Your task to perform on an android device: turn off javascript in the chrome app Image 0: 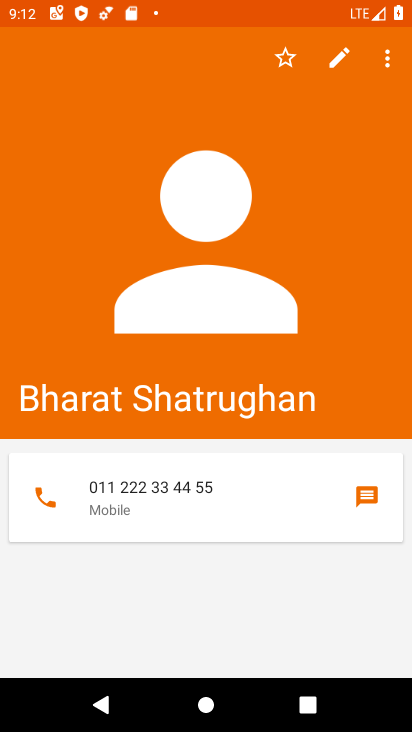
Step 0: press home button
Your task to perform on an android device: turn off javascript in the chrome app Image 1: 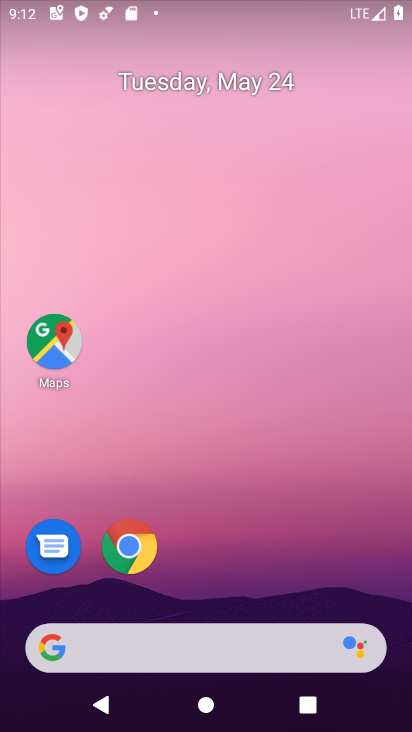
Step 1: click (122, 541)
Your task to perform on an android device: turn off javascript in the chrome app Image 2: 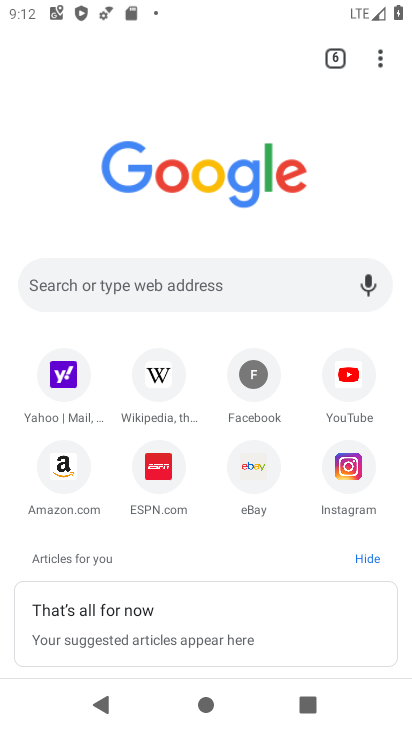
Step 2: click (379, 67)
Your task to perform on an android device: turn off javascript in the chrome app Image 3: 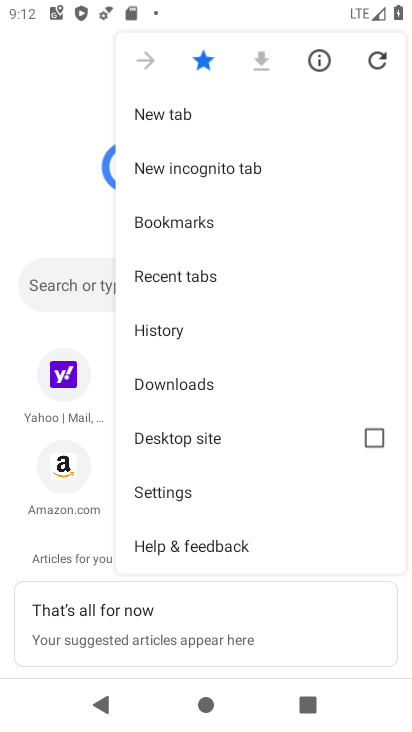
Step 3: click (206, 486)
Your task to perform on an android device: turn off javascript in the chrome app Image 4: 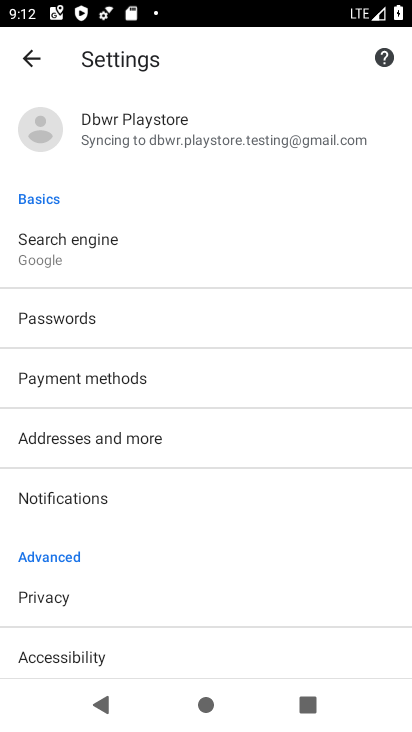
Step 4: drag from (222, 524) to (274, 300)
Your task to perform on an android device: turn off javascript in the chrome app Image 5: 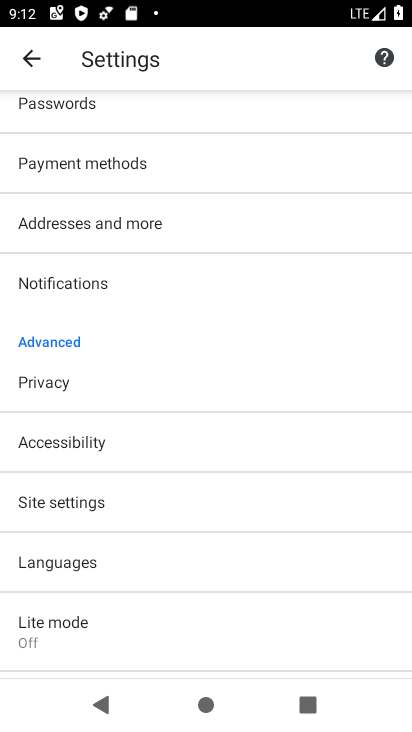
Step 5: click (194, 508)
Your task to perform on an android device: turn off javascript in the chrome app Image 6: 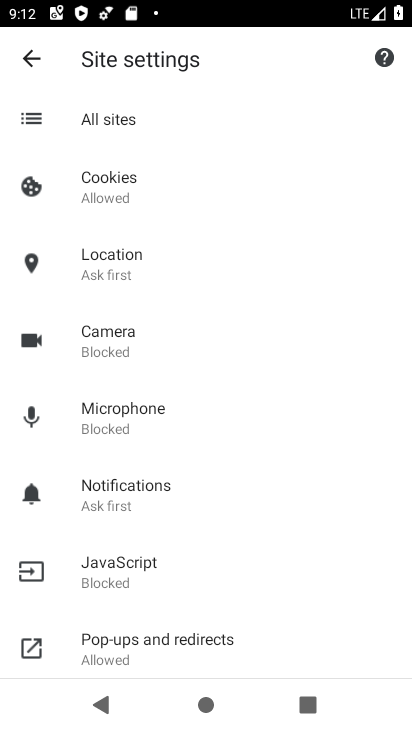
Step 6: click (199, 564)
Your task to perform on an android device: turn off javascript in the chrome app Image 7: 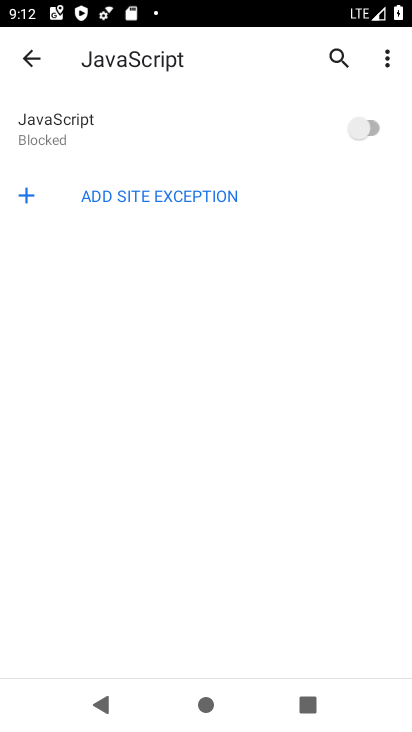
Step 7: task complete